Your task to perform on an android device: Search for asus zenbook on target, select the first entry, add it to the cart, then select checkout. Image 0: 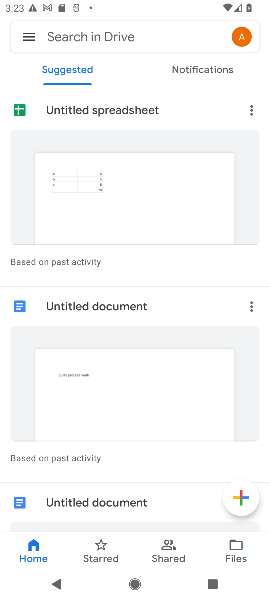
Step 0: press home button
Your task to perform on an android device: Search for asus zenbook on target, select the first entry, add it to the cart, then select checkout. Image 1: 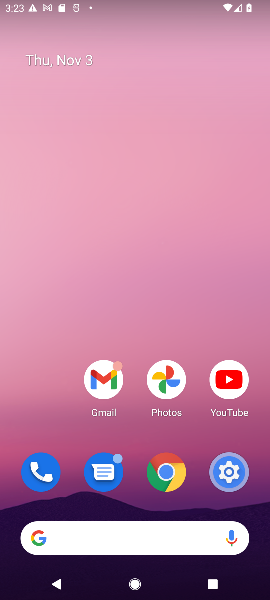
Step 1: click (83, 534)
Your task to perform on an android device: Search for asus zenbook on target, select the first entry, add it to the cart, then select checkout. Image 2: 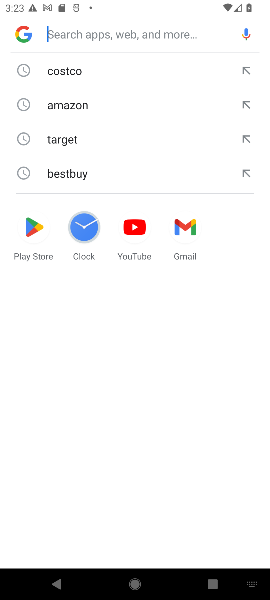
Step 2: type "target"
Your task to perform on an android device: Search for asus zenbook on target, select the first entry, add it to the cart, then select checkout. Image 3: 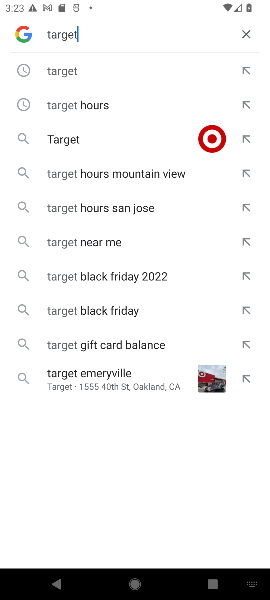
Step 3: click (90, 135)
Your task to perform on an android device: Search for asus zenbook on target, select the first entry, add it to the cart, then select checkout. Image 4: 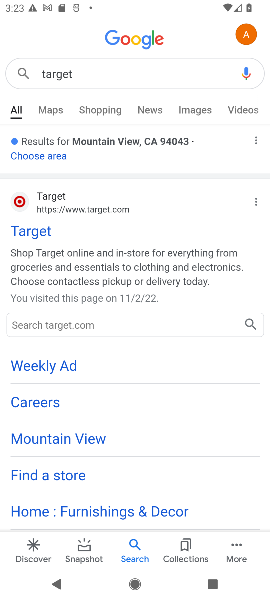
Step 4: click (31, 222)
Your task to perform on an android device: Search for asus zenbook on target, select the first entry, add it to the cart, then select checkout. Image 5: 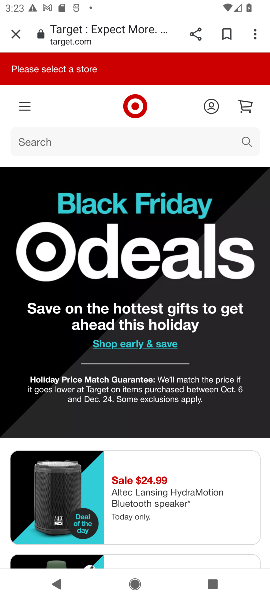
Step 5: click (78, 141)
Your task to perform on an android device: Search for asus zenbook on target, select the first entry, add it to the cart, then select checkout. Image 6: 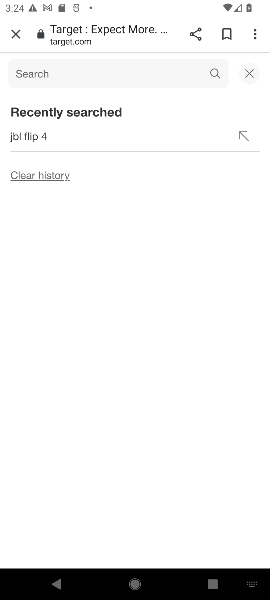
Step 6: type "asus zenbook"
Your task to perform on an android device: Search for asus zenbook on target, select the first entry, add it to the cart, then select checkout. Image 7: 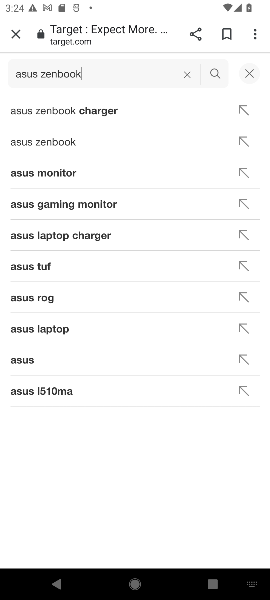
Step 7: click (211, 71)
Your task to perform on an android device: Search for asus zenbook on target, select the first entry, add it to the cart, then select checkout. Image 8: 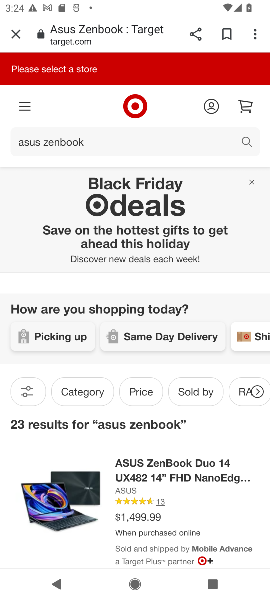
Step 8: click (137, 482)
Your task to perform on an android device: Search for asus zenbook on target, select the first entry, add it to the cart, then select checkout. Image 9: 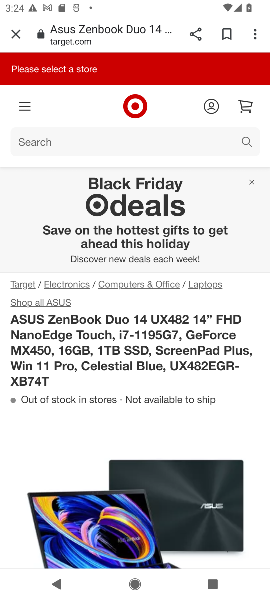
Step 9: drag from (137, 482) to (132, 239)
Your task to perform on an android device: Search for asus zenbook on target, select the first entry, add it to the cart, then select checkout. Image 10: 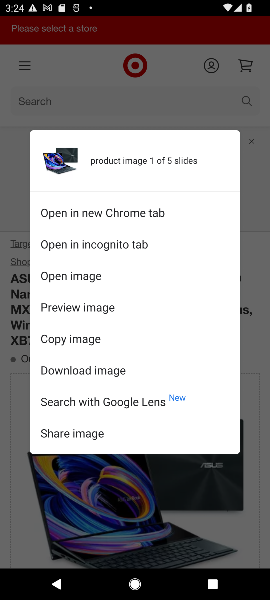
Step 10: click (143, 524)
Your task to perform on an android device: Search for asus zenbook on target, select the first entry, add it to the cart, then select checkout. Image 11: 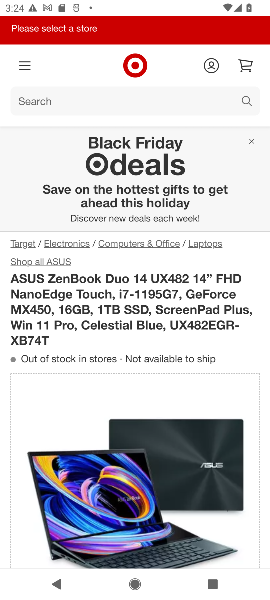
Step 11: drag from (170, 513) to (151, 129)
Your task to perform on an android device: Search for asus zenbook on target, select the first entry, add it to the cart, then select checkout. Image 12: 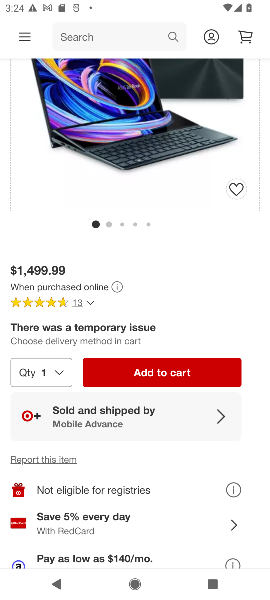
Step 12: click (131, 370)
Your task to perform on an android device: Search for asus zenbook on target, select the first entry, add it to the cart, then select checkout. Image 13: 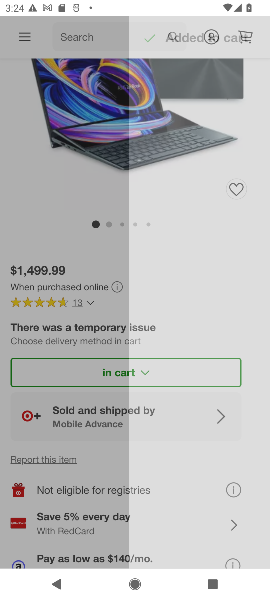
Step 13: task complete